Your task to perform on an android device: change notification settings in the gmail app Image 0: 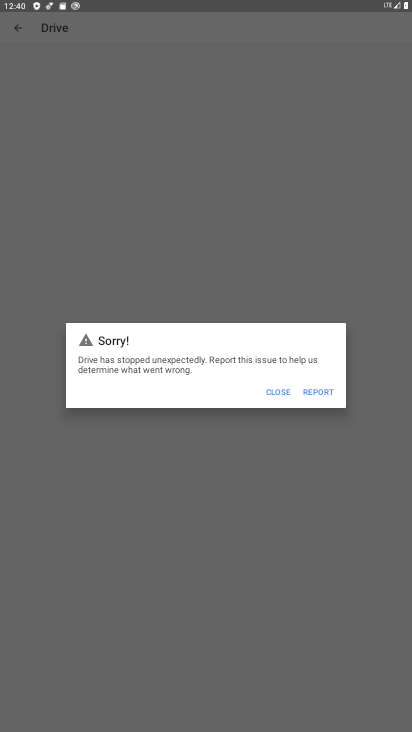
Step 0: press home button
Your task to perform on an android device: change notification settings in the gmail app Image 1: 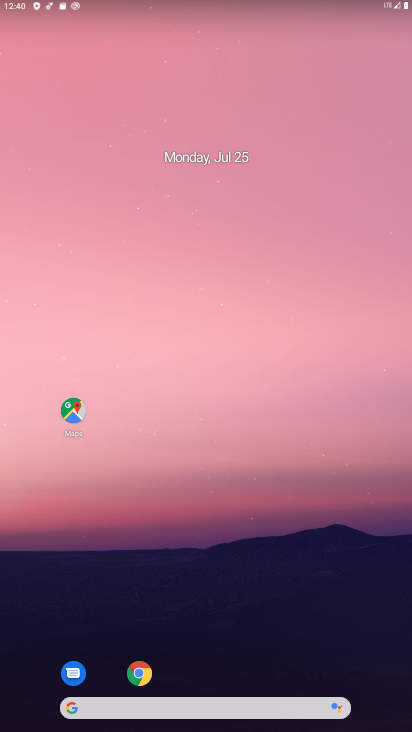
Step 1: drag from (223, 681) to (286, 59)
Your task to perform on an android device: change notification settings in the gmail app Image 2: 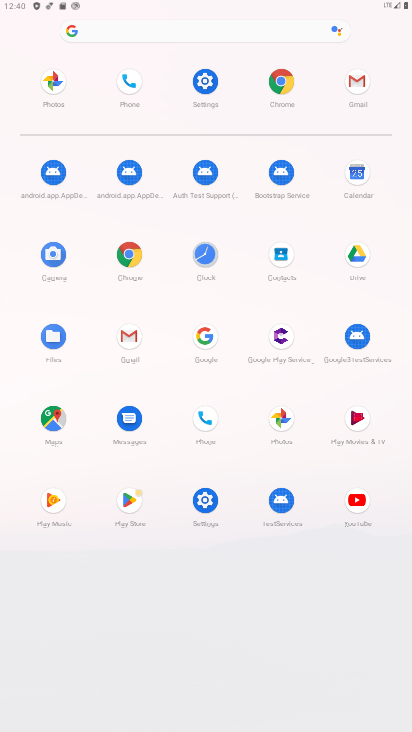
Step 2: click (130, 341)
Your task to perform on an android device: change notification settings in the gmail app Image 3: 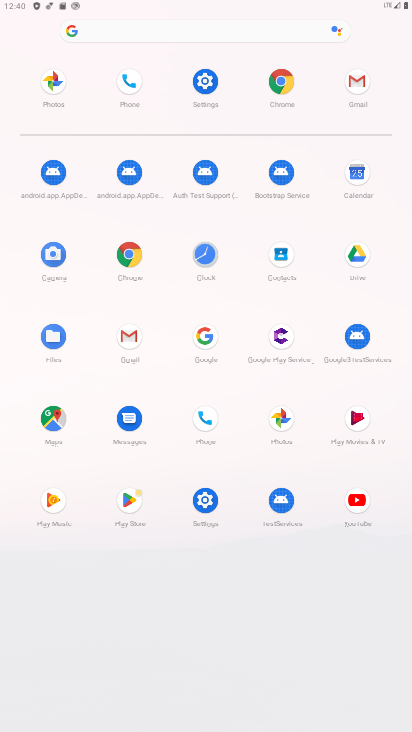
Step 3: click (130, 341)
Your task to perform on an android device: change notification settings in the gmail app Image 4: 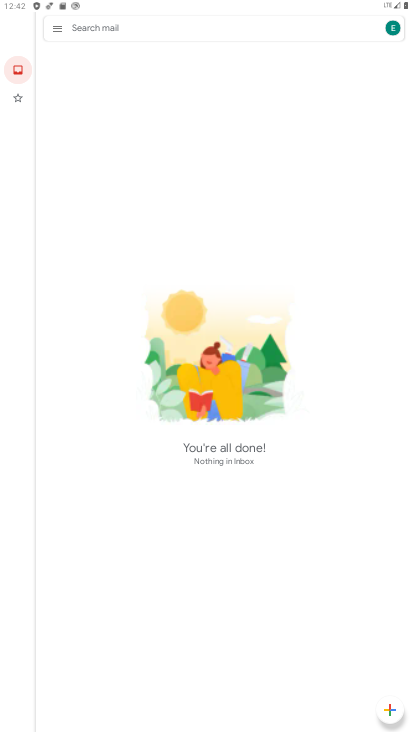
Step 4: press home button
Your task to perform on an android device: change notification settings in the gmail app Image 5: 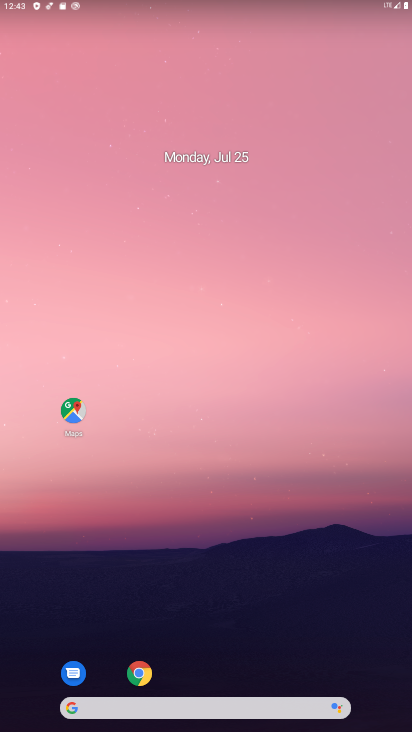
Step 5: drag from (154, 714) to (263, 104)
Your task to perform on an android device: change notification settings in the gmail app Image 6: 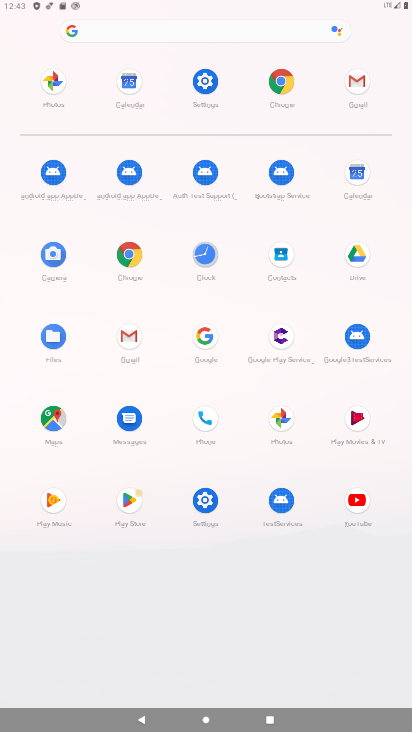
Step 6: click (362, 87)
Your task to perform on an android device: change notification settings in the gmail app Image 7: 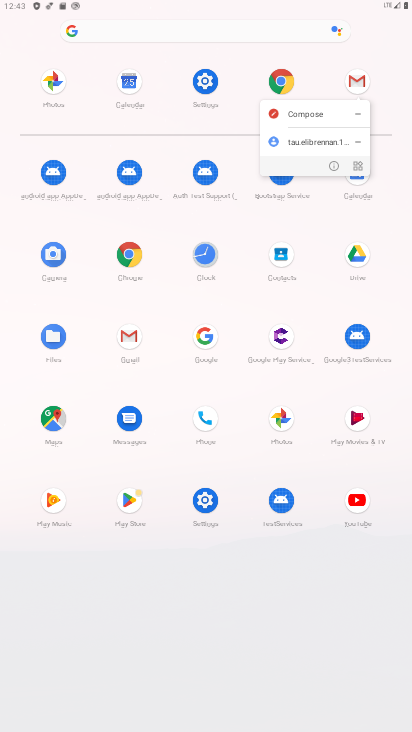
Step 7: click (330, 166)
Your task to perform on an android device: change notification settings in the gmail app Image 8: 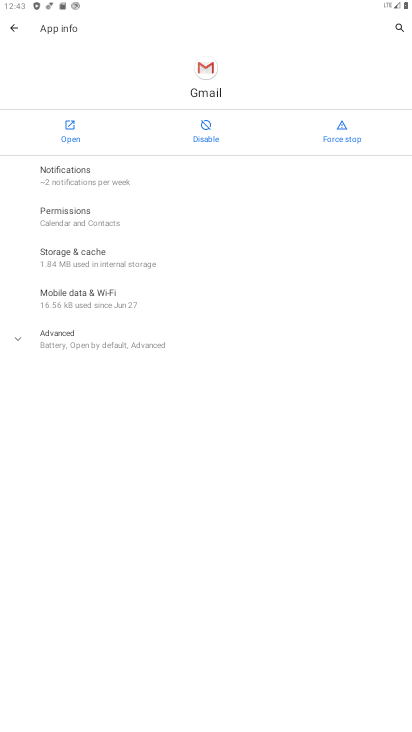
Step 8: click (141, 181)
Your task to perform on an android device: change notification settings in the gmail app Image 9: 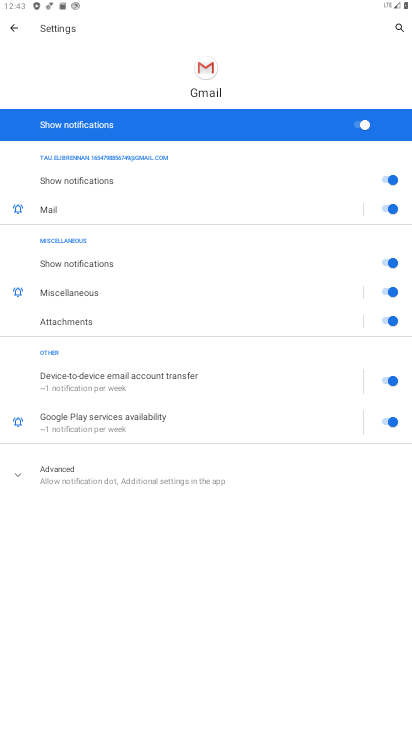
Step 9: click (361, 121)
Your task to perform on an android device: change notification settings in the gmail app Image 10: 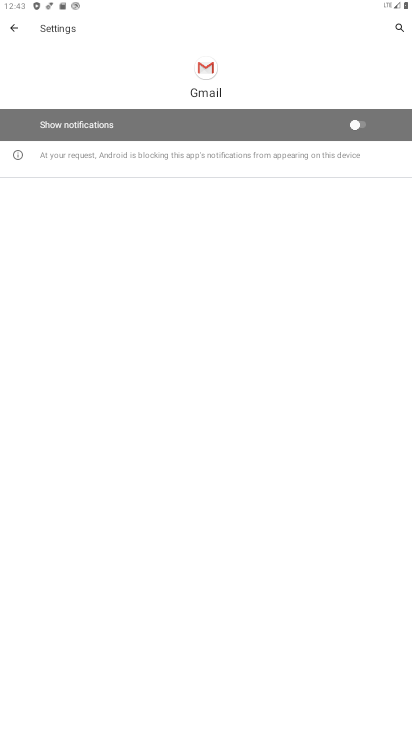
Step 10: task complete